Your task to perform on an android device: Find coffee shops on Maps Image 0: 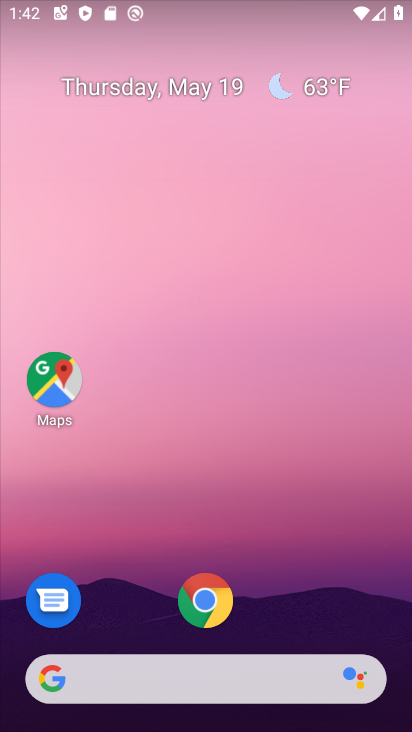
Step 0: click (66, 379)
Your task to perform on an android device: Find coffee shops on Maps Image 1: 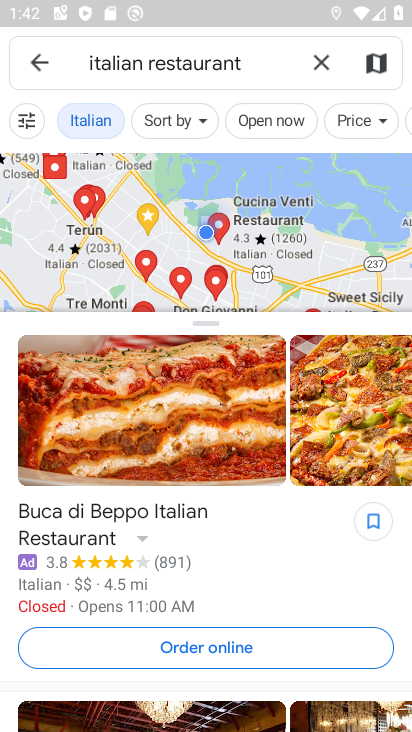
Step 1: click (321, 67)
Your task to perform on an android device: Find coffee shops on Maps Image 2: 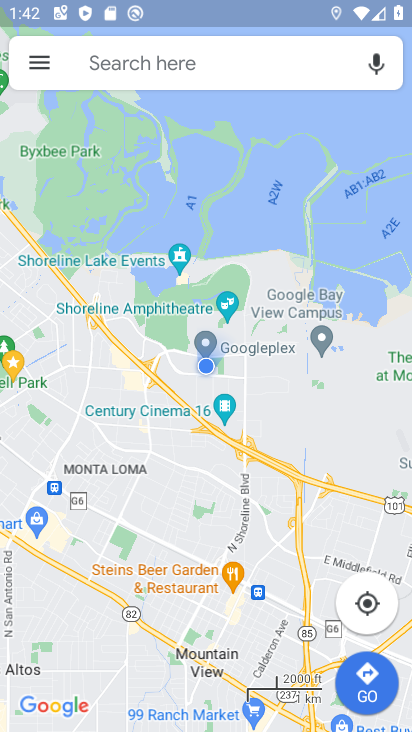
Step 2: click (236, 65)
Your task to perform on an android device: Find coffee shops on Maps Image 3: 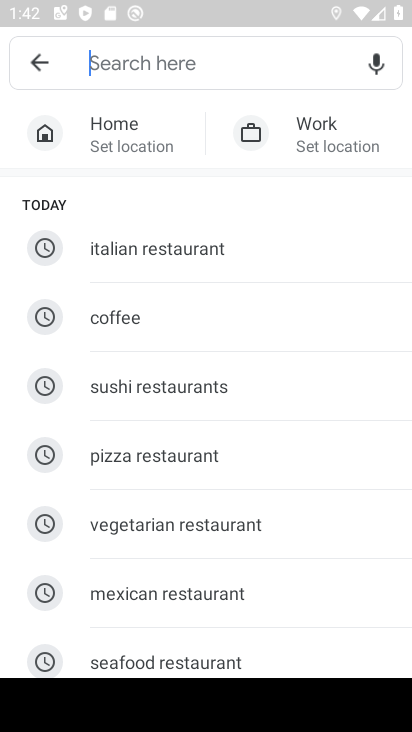
Step 3: click (185, 311)
Your task to perform on an android device: Find coffee shops on Maps Image 4: 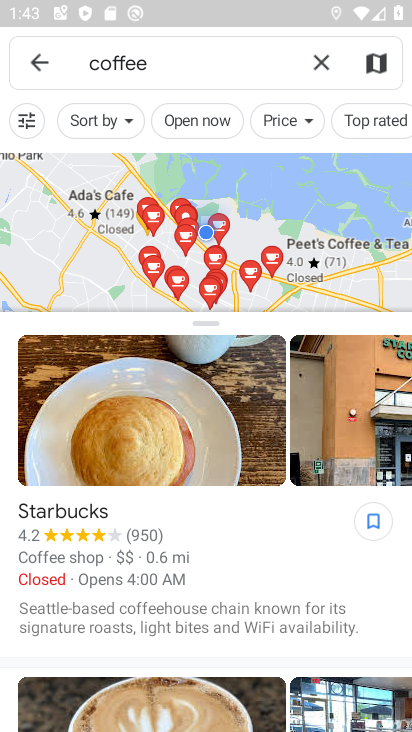
Step 4: task complete